Your task to perform on an android device: Go to display settings Image 0: 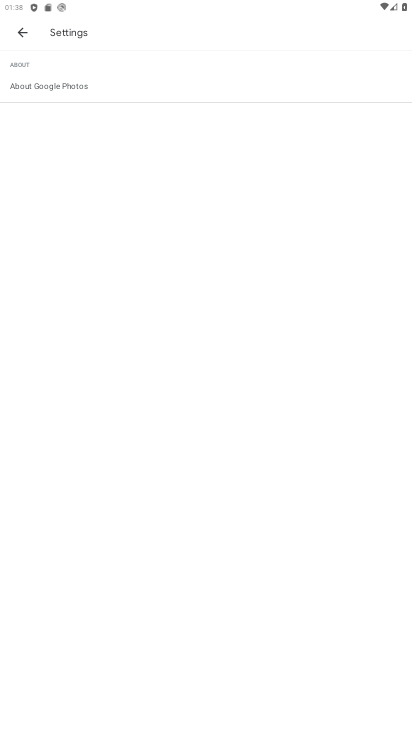
Step 0: press home button
Your task to perform on an android device: Go to display settings Image 1: 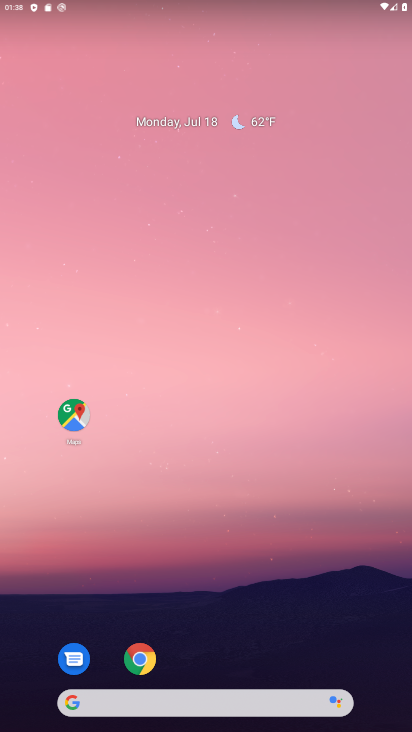
Step 1: drag from (244, 303) to (235, 96)
Your task to perform on an android device: Go to display settings Image 2: 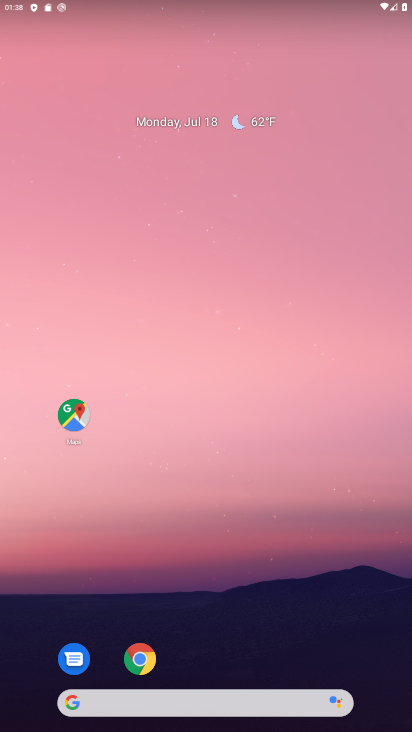
Step 2: drag from (286, 612) to (236, 158)
Your task to perform on an android device: Go to display settings Image 3: 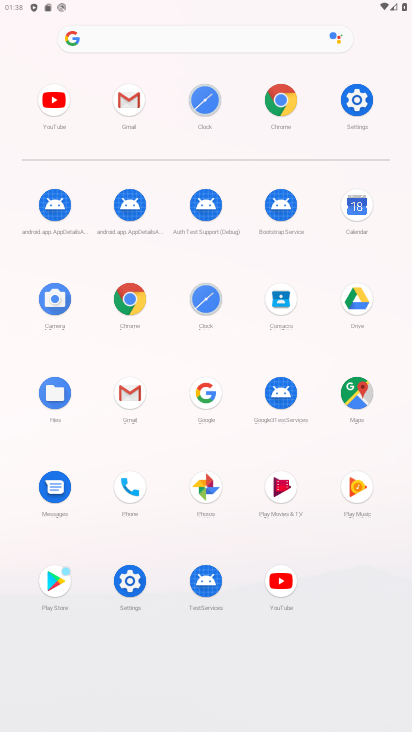
Step 3: click (363, 98)
Your task to perform on an android device: Go to display settings Image 4: 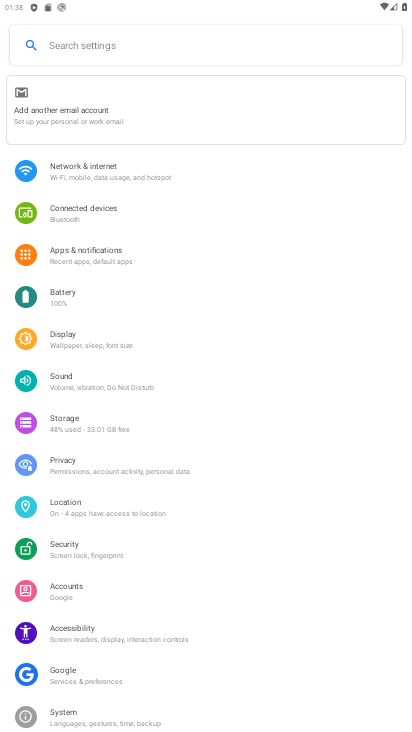
Step 4: click (100, 346)
Your task to perform on an android device: Go to display settings Image 5: 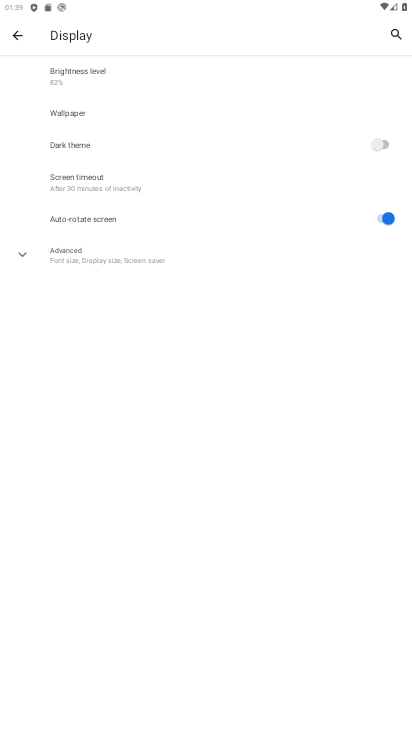
Step 5: task complete